Your task to perform on an android device: change the upload size in google photos Image 0: 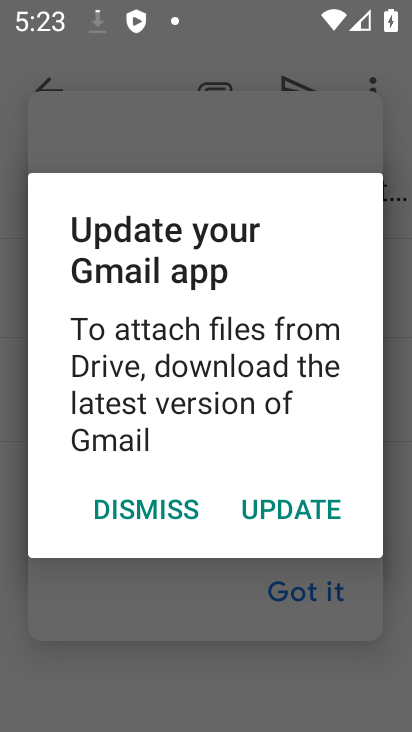
Step 0: press home button
Your task to perform on an android device: change the upload size in google photos Image 1: 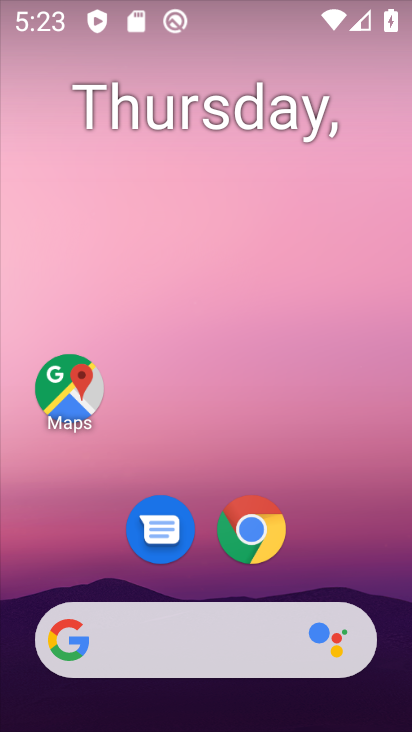
Step 1: drag from (343, 557) to (246, 56)
Your task to perform on an android device: change the upload size in google photos Image 2: 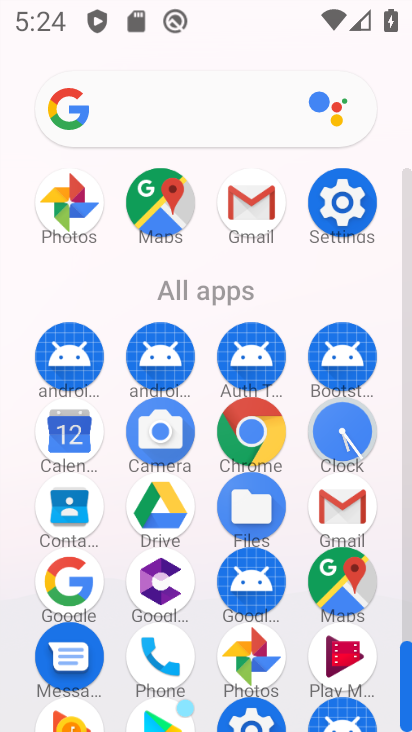
Step 2: click (69, 202)
Your task to perform on an android device: change the upload size in google photos Image 3: 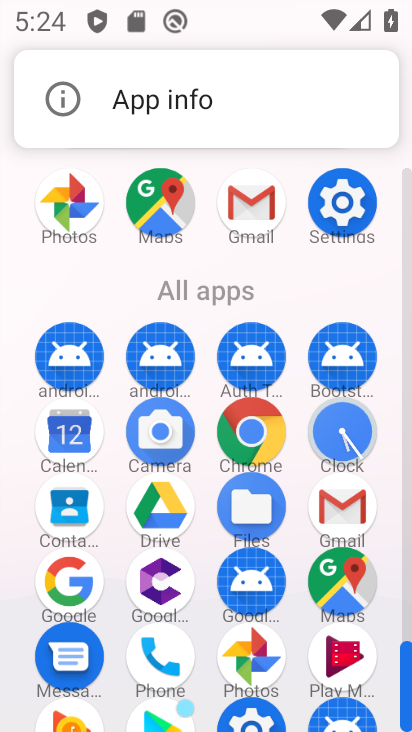
Step 3: click (69, 202)
Your task to perform on an android device: change the upload size in google photos Image 4: 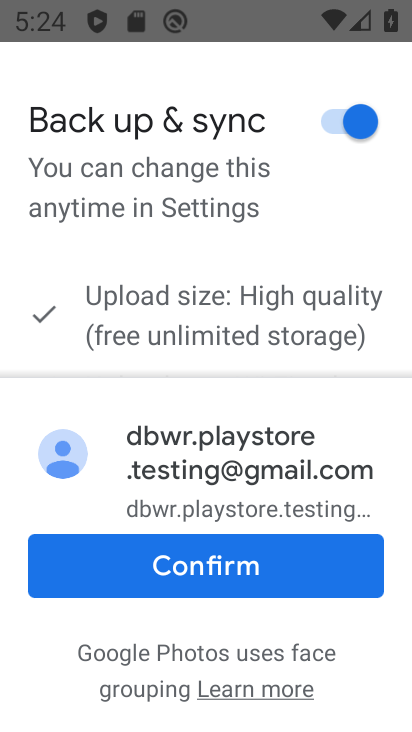
Step 4: click (195, 577)
Your task to perform on an android device: change the upload size in google photos Image 5: 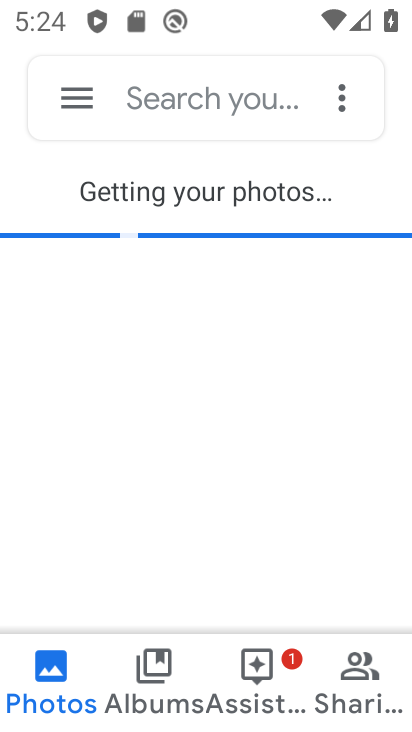
Step 5: click (67, 99)
Your task to perform on an android device: change the upload size in google photos Image 6: 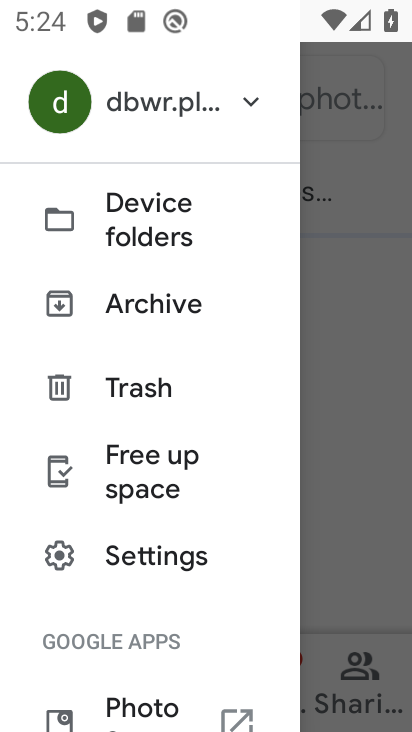
Step 6: click (172, 553)
Your task to perform on an android device: change the upload size in google photos Image 7: 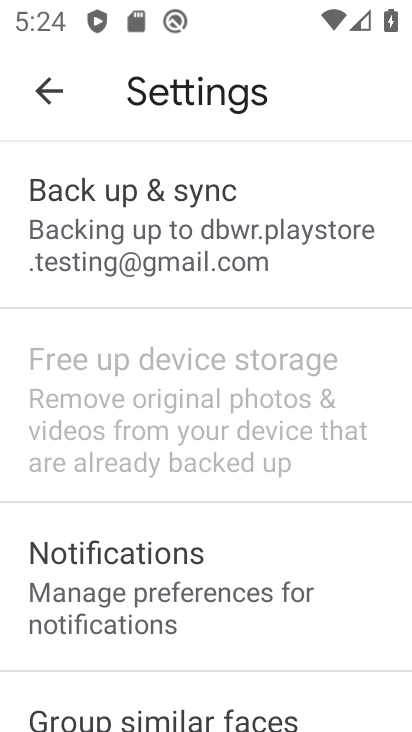
Step 7: click (128, 198)
Your task to perform on an android device: change the upload size in google photos Image 8: 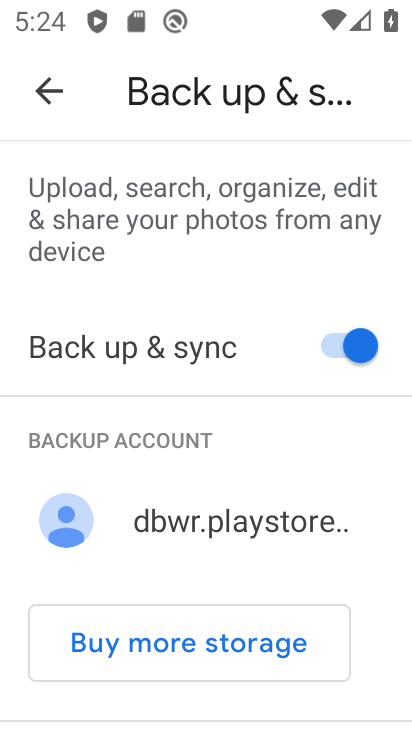
Step 8: drag from (217, 491) to (292, 279)
Your task to perform on an android device: change the upload size in google photos Image 9: 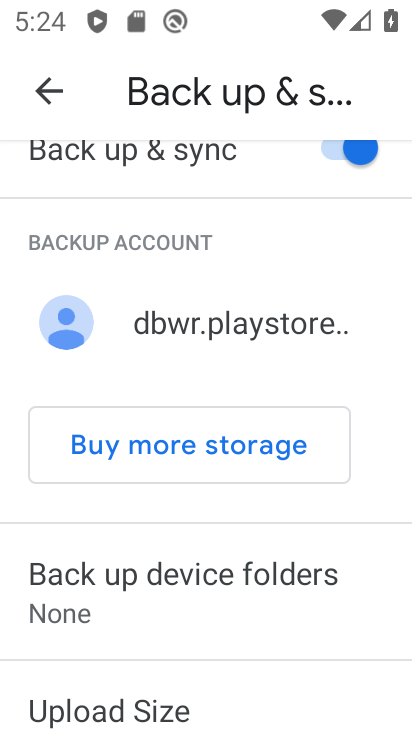
Step 9: drag from (214, 608) to (296, 361)
Your task to perform on an android device: change the upload size in google photos Image 10: 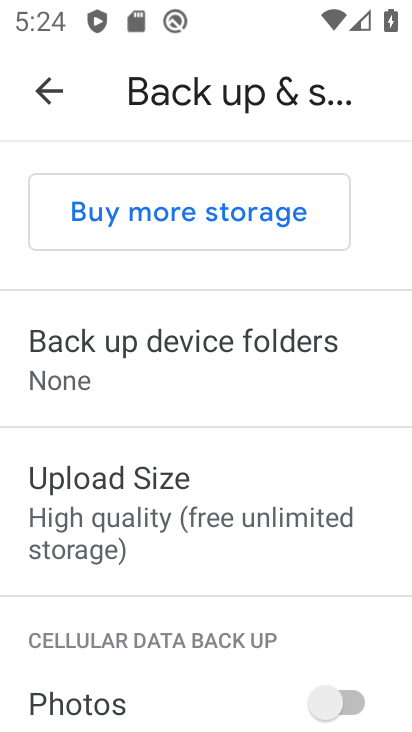
Step 10: click (225, 500)
Your task to perform on an android device: change the upload size in google photos Image 11: 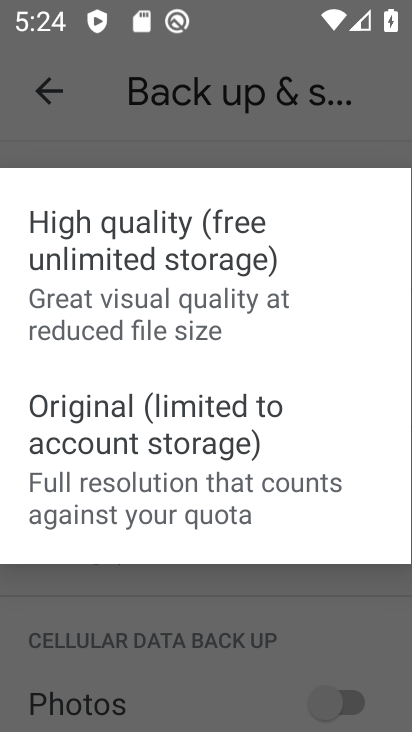
Step 11: click (207, 406)
Your task to perform on an android device: change the upload size in google photos Image 12: 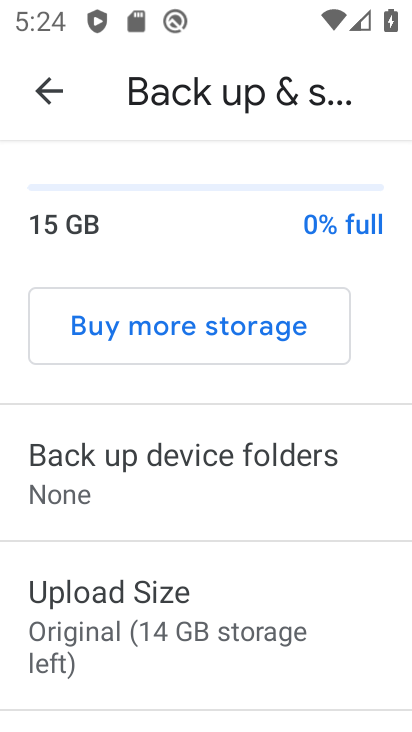
Step 12: task complete